Your task to perform on an android device: What's on my calendar today? Image 0: 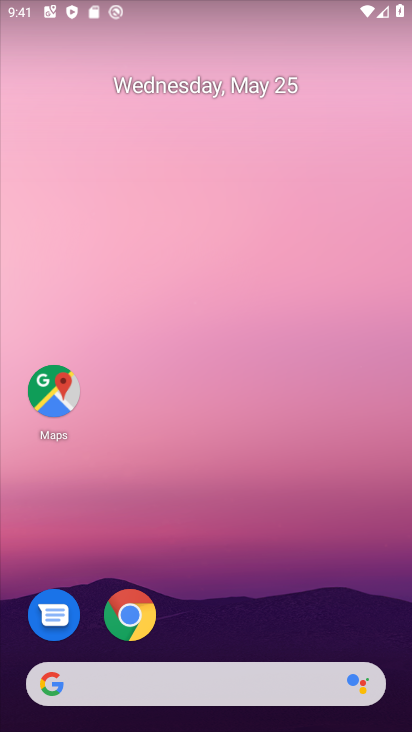
Step 0: drag from (244, 487) to (253, 32)
Your task to perform on an android device: What's on my calendar today? Image 1: 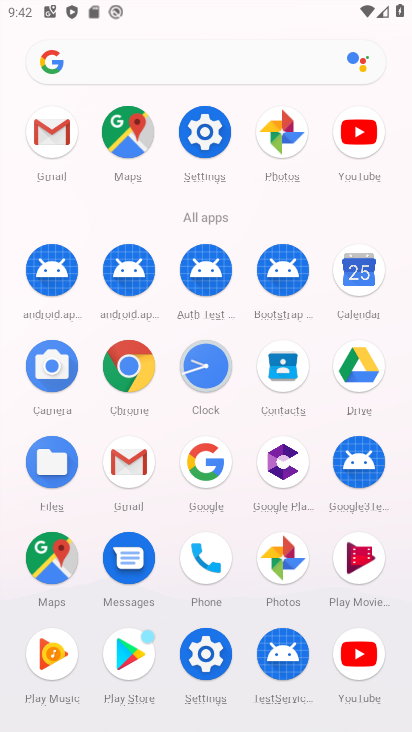
Step 1: click (346, 271)
Your task to perform on an android device: What's on my calendar today? Image 2: 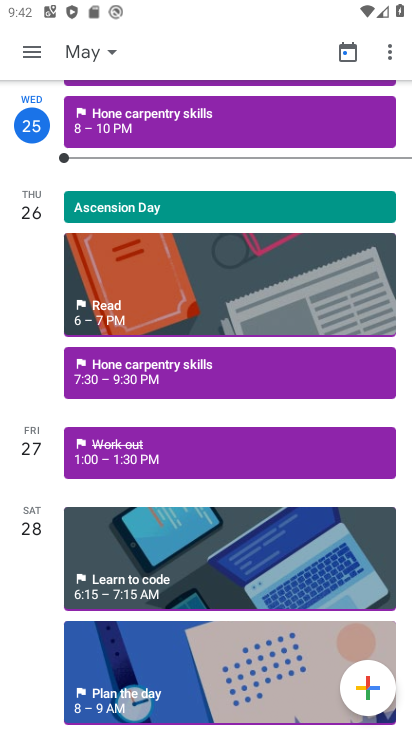
Step 2: task complete